Your task to perform on an android device: Open a new Chrome private tab Image 0: 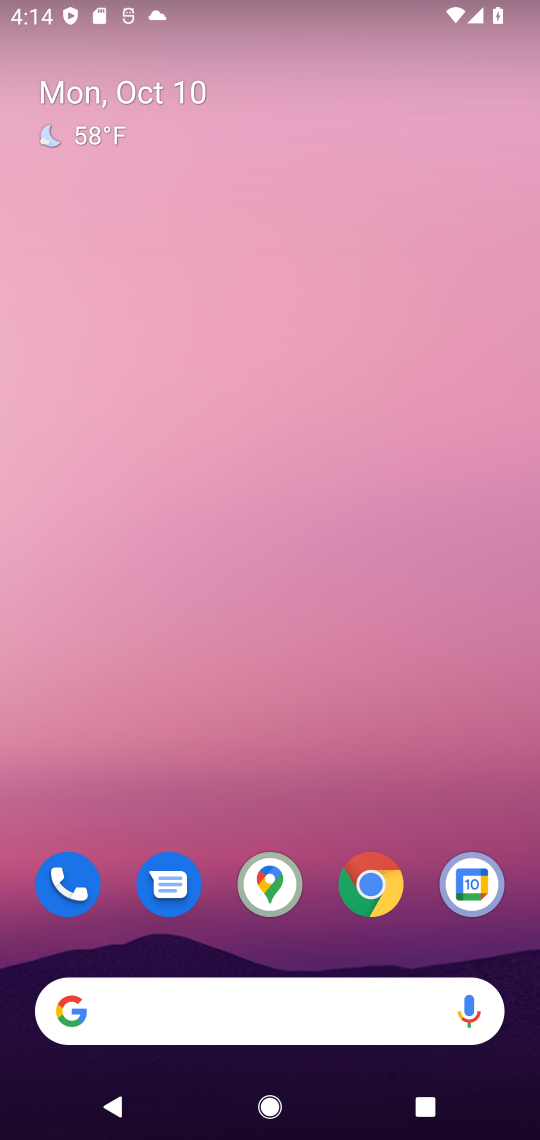
Step 0: click (358, 895)
Your task to perform on an android device: Open a new Chrome private tab Image 1: 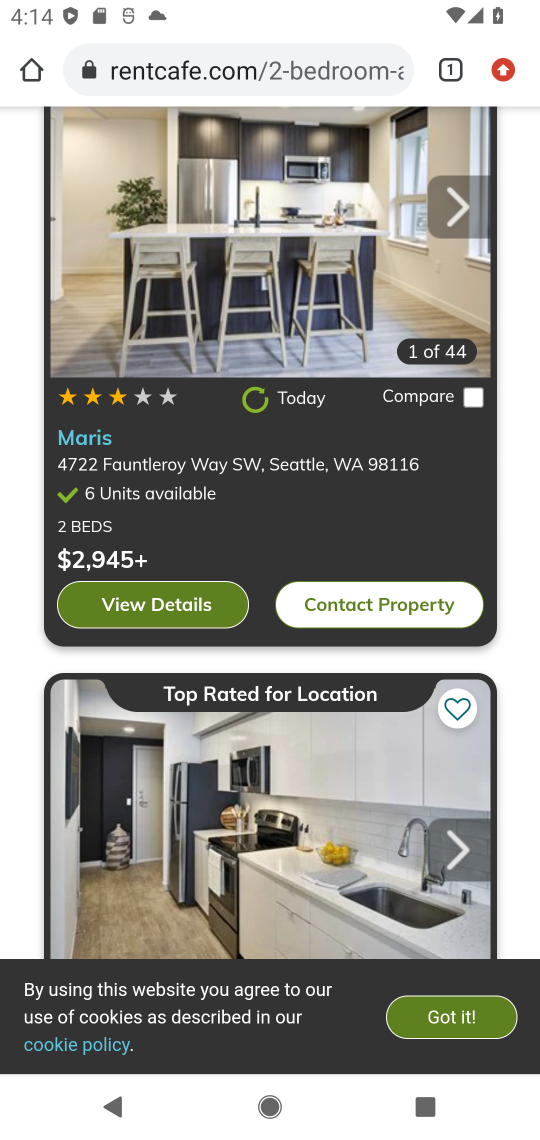
Step 1: click (500, 73)
Your task to perform on an android device: Open a new Chrome private tab Image 2: 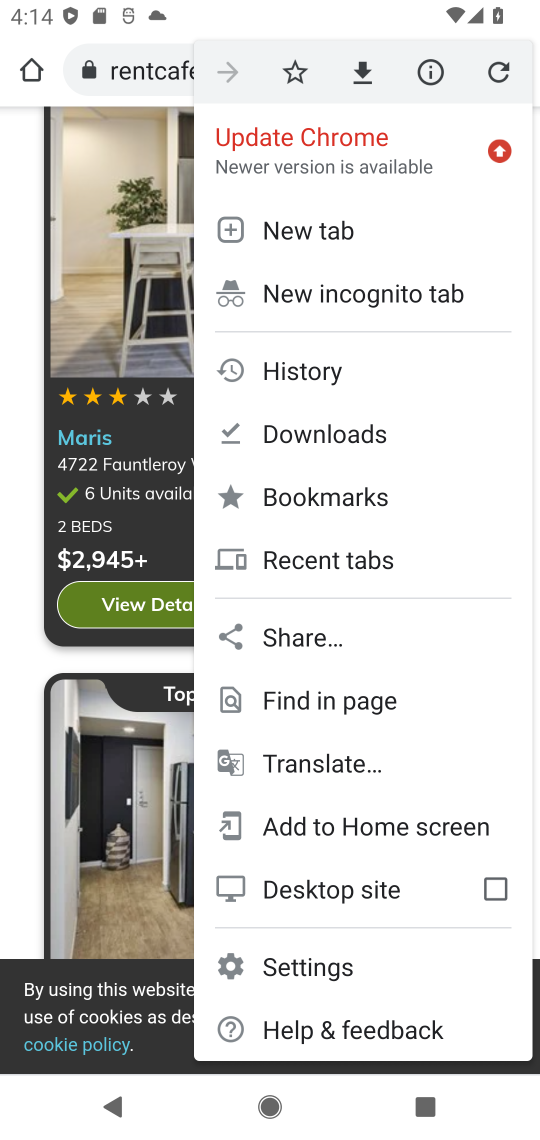
Step 2: click (282, 233)
Your task to perform on an android device: Open a new Chrome private tab Image 3: 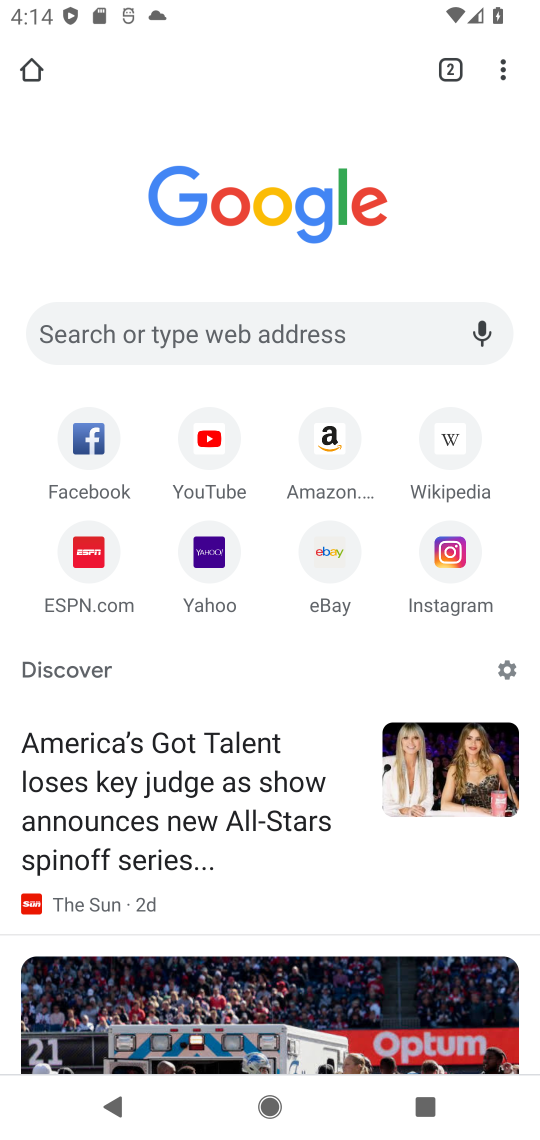
Step 3: task complete